Your task to perform on an android device: View the shopping cart on target.com. Search for energizer triple a on target.com, select the first entry, add it to the cart, then select checkout. Image 0: 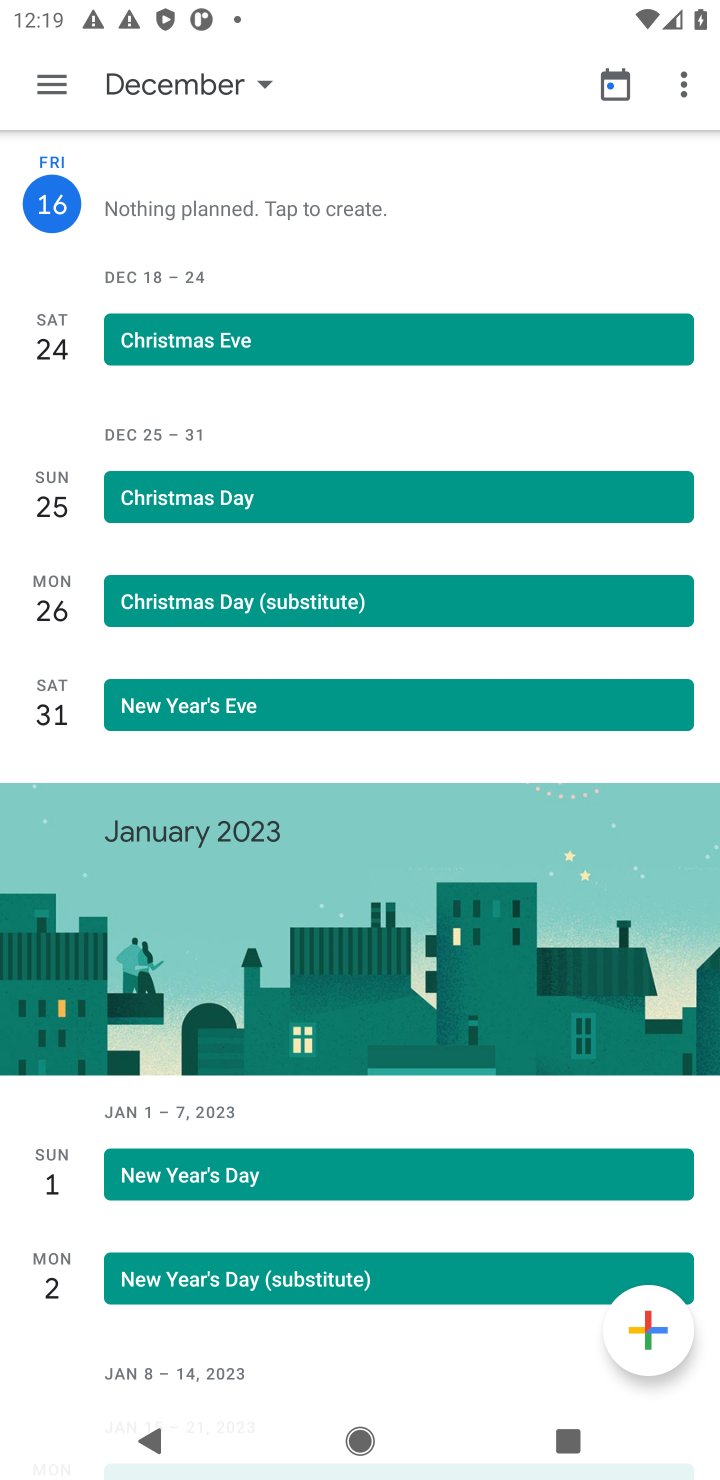
Step 0: press home button
Your task to perform on an android device: View the shopping cart on target.com. Search for energizer triple a on target.com, select the first entry, add it to the cart, then select checkout. Image 1: 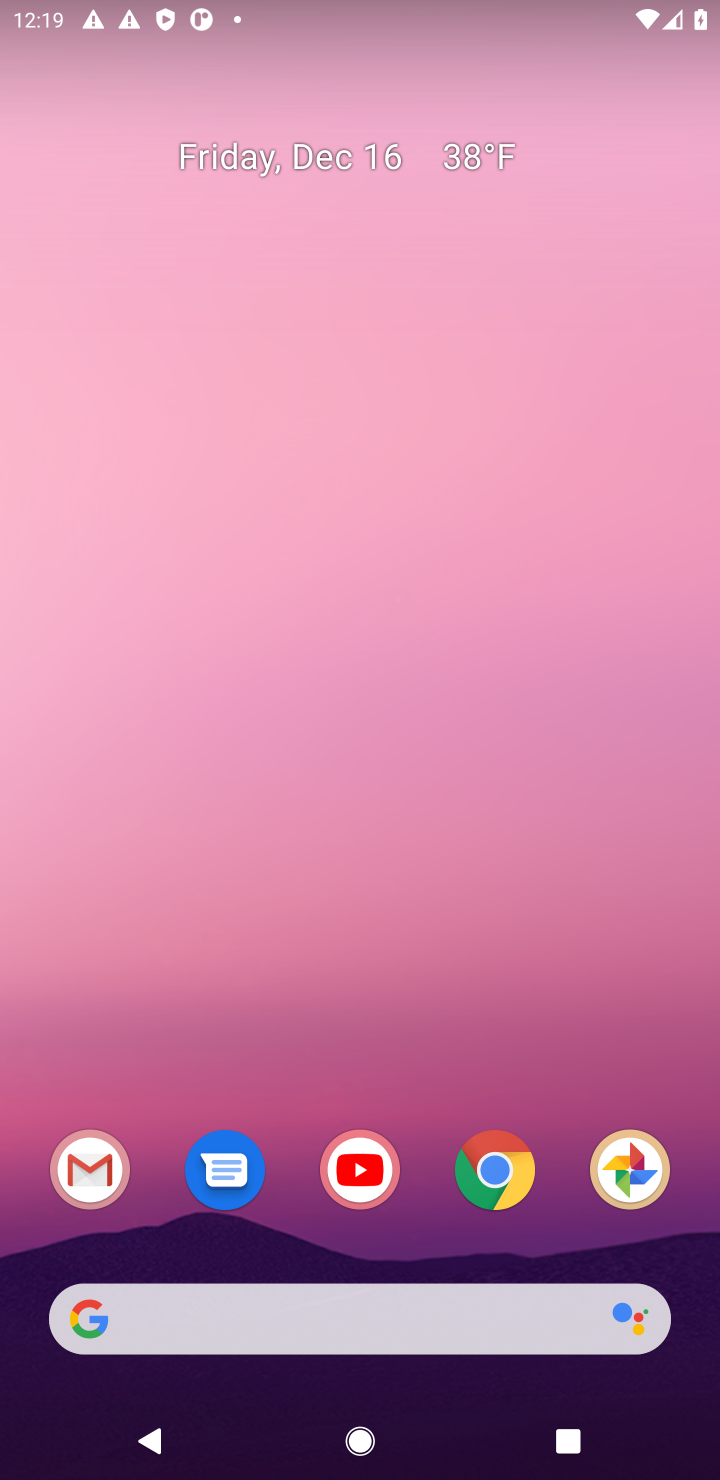
Step 1: click (498, 1177)
Your task to perform on an android device: View the shopping cart on target.com. Search for energizer triple a on target.com, select the first entry, add it to the cart, then select checkout. Image 2: 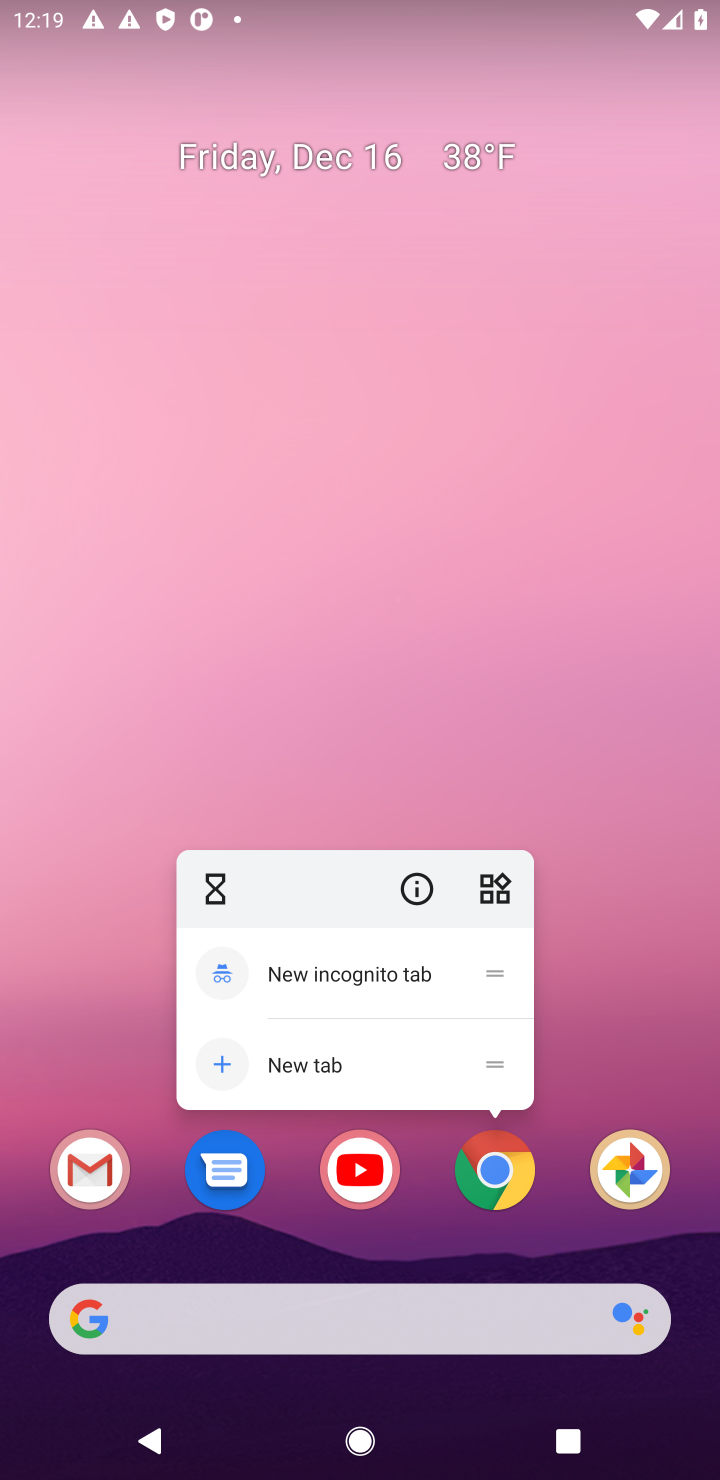
Step 2: click (500, 1178)
Your task to perform on an android device: View the shopping cart on target.com. Search for energizer triple a on target.com, select the first entry, add it to the cart, then select checkout. Image 3: 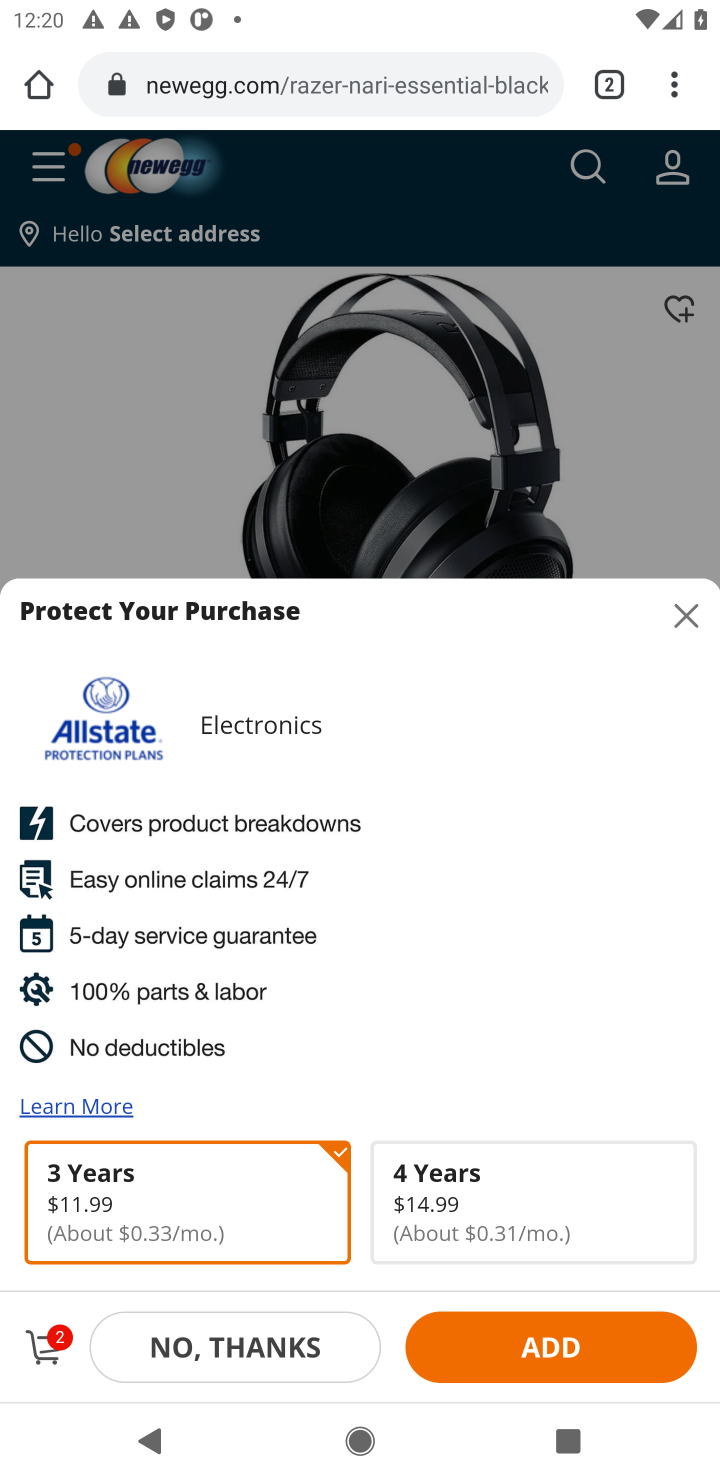
Step 3: click (345, 92)
Your task to perform on an android device: View the shopping cart on target.com. Search for energizer triple a on target.com, select the first entry, add it to the cart, then select checkout. Image 4: 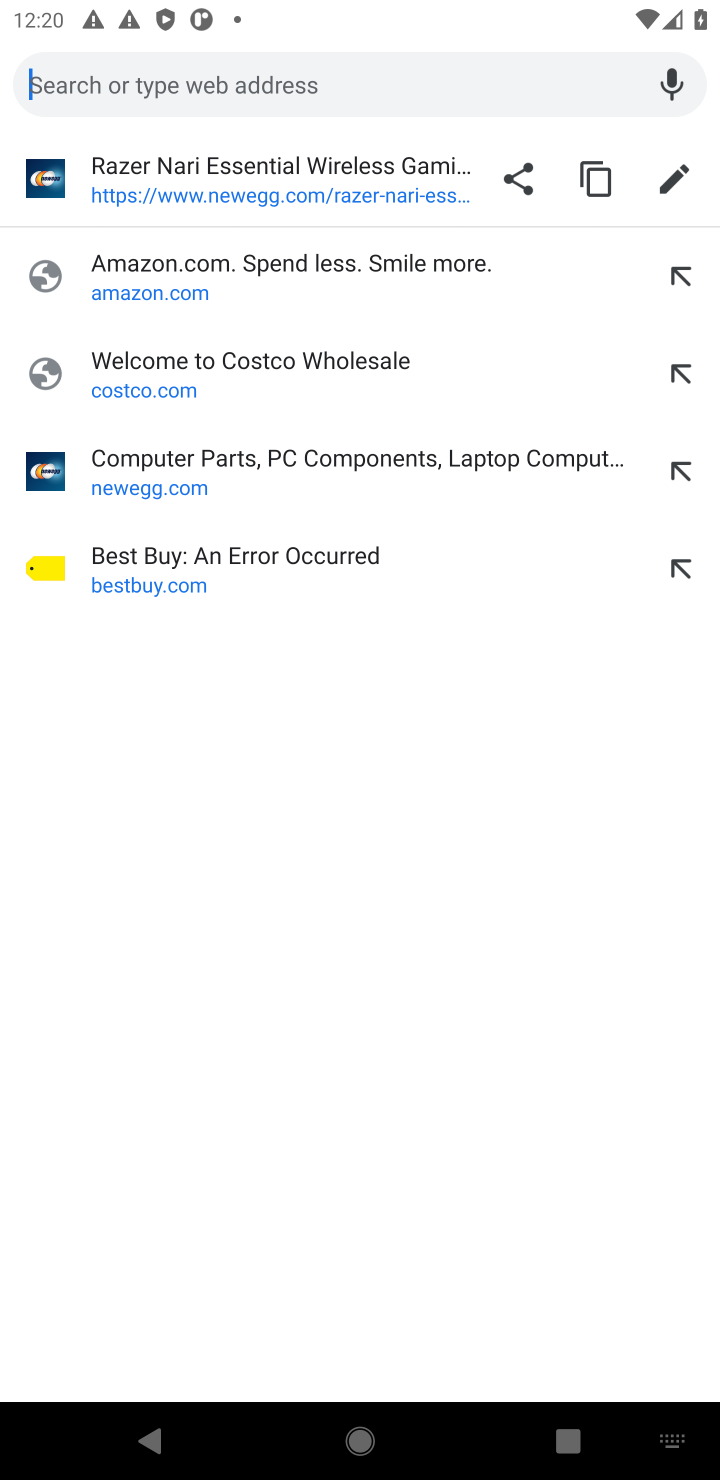
Step 4: type "target.com"
Your task to perform on an android device: View the shopping cart on target.com. Search for energizer triple a on target.com, select the first entry, add it to the cart, then select checkout. Image 5: 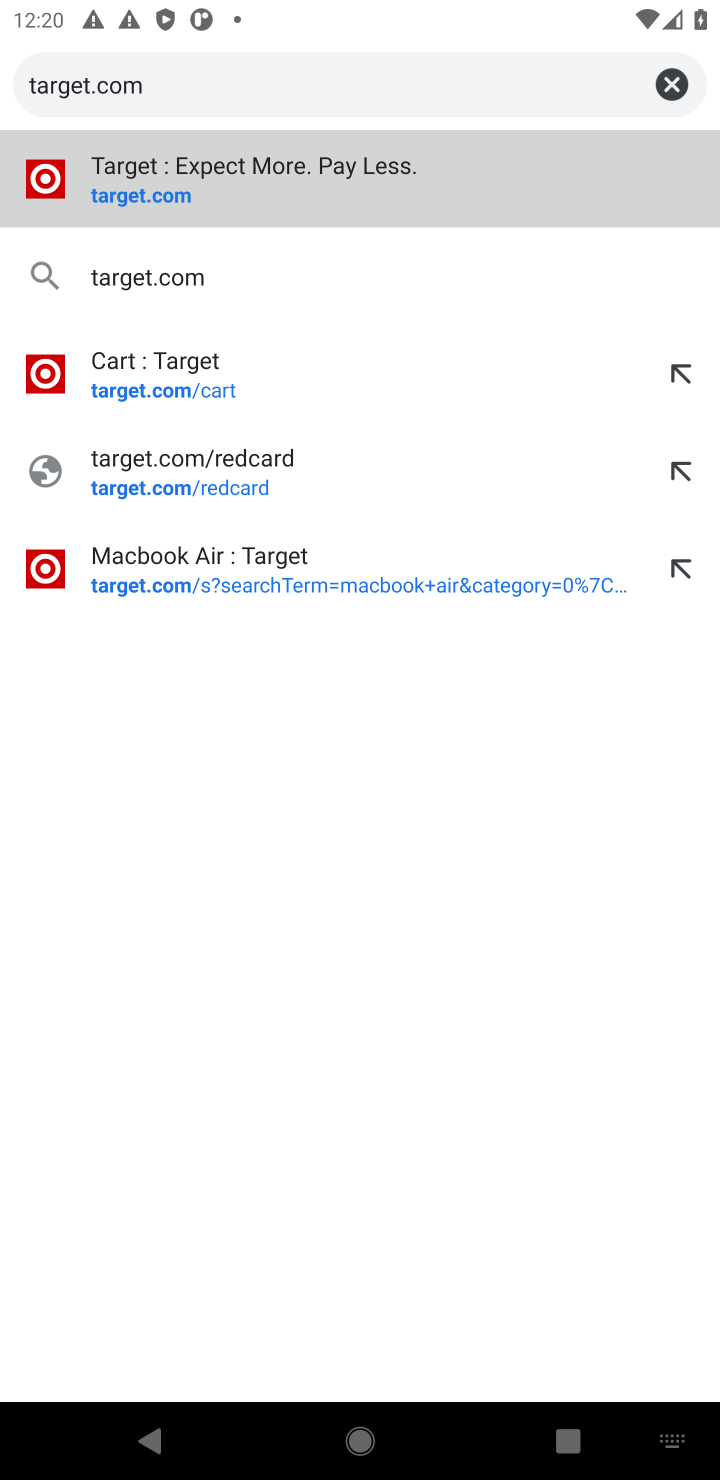
Step 5: click (171, 183)
Your task to perform on an android device: View the shopping cart on target.com. Search for energizer triple a on target.com, select the first entry, add it to the cart, then select checkout. Image 6: 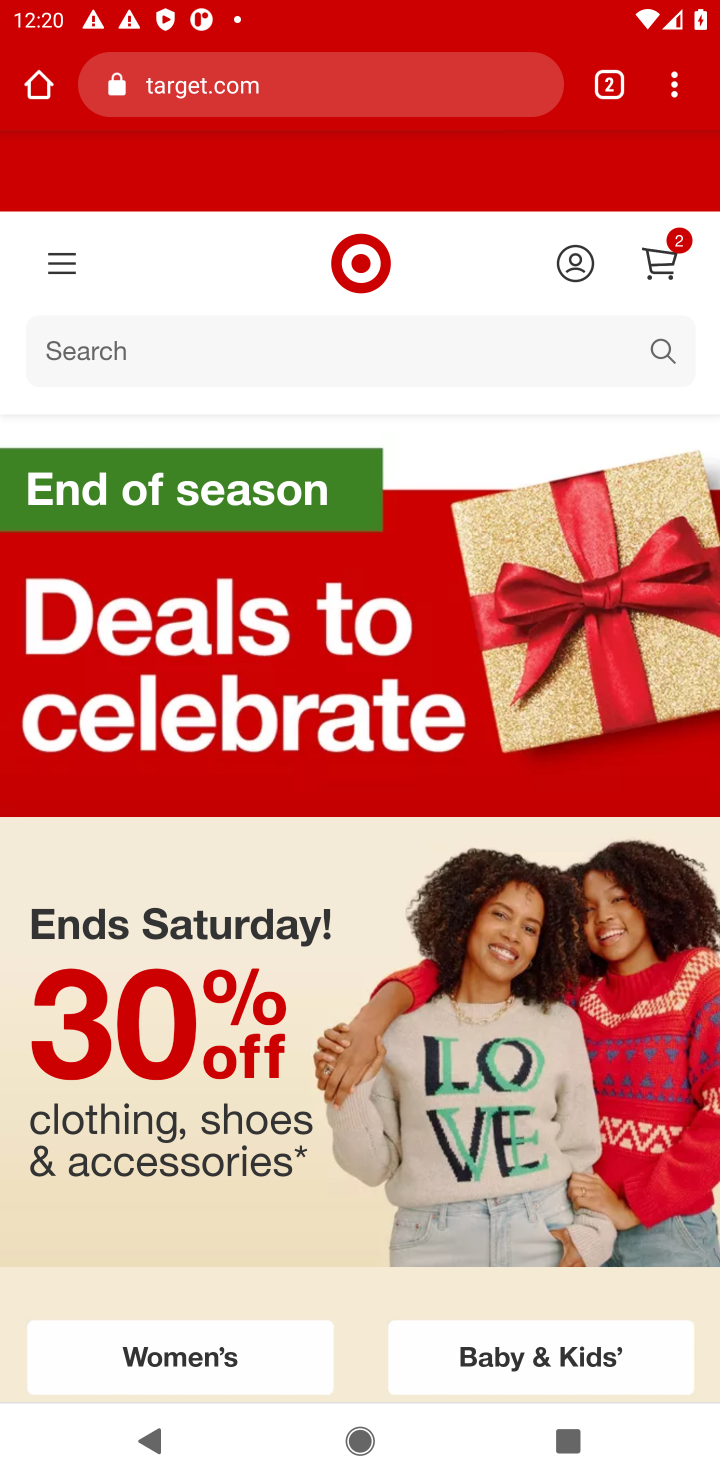
Step 6: click (664, 273)
Your task to perform on an android device: View the shopping cart on target.com. Search for energizer triple a on target.com, select the first entry, add it to the cart, then select checkout. Image 7: 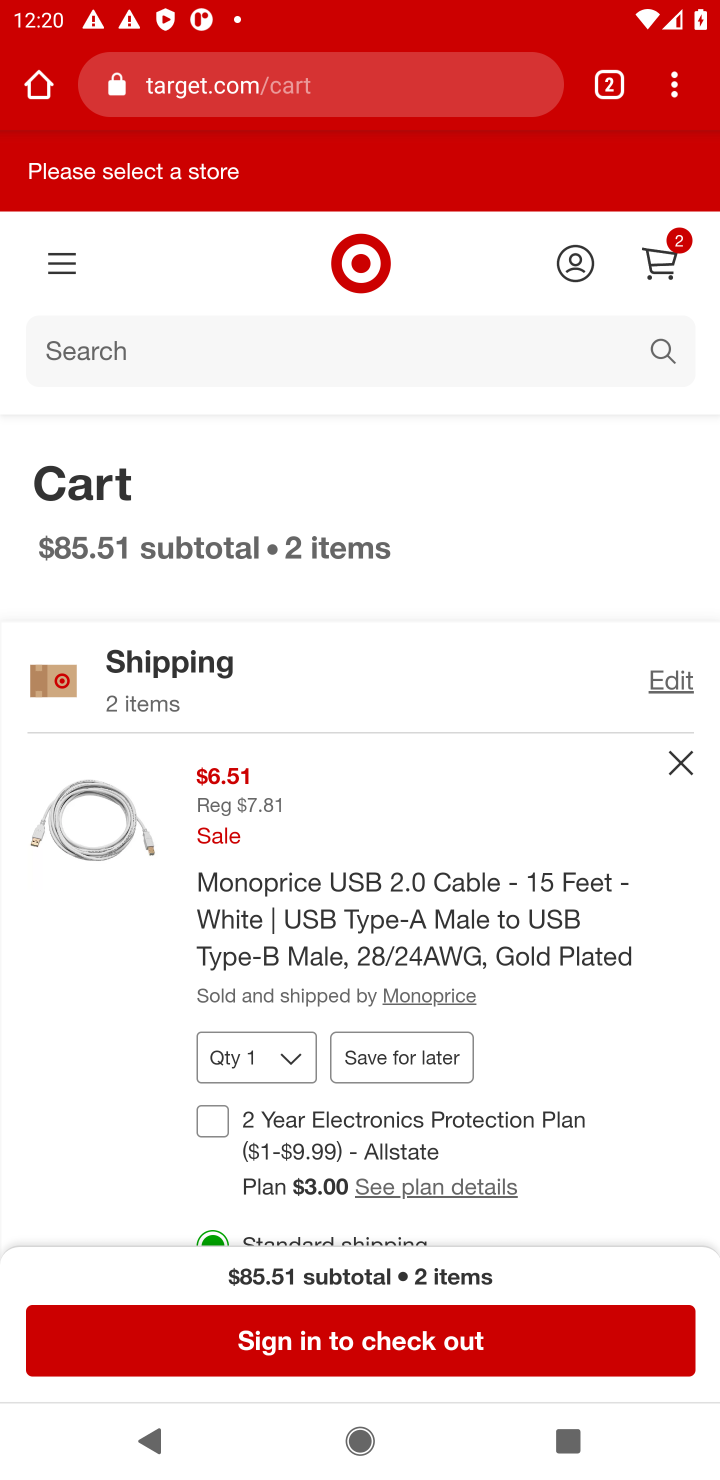
Step 7: click (51, 362)
Your task to perform on an android device: View the shopping cart on target.com. Search for energizer triple a on target.com, select the first entry, add it to the cart, then select checkout. Image 8: 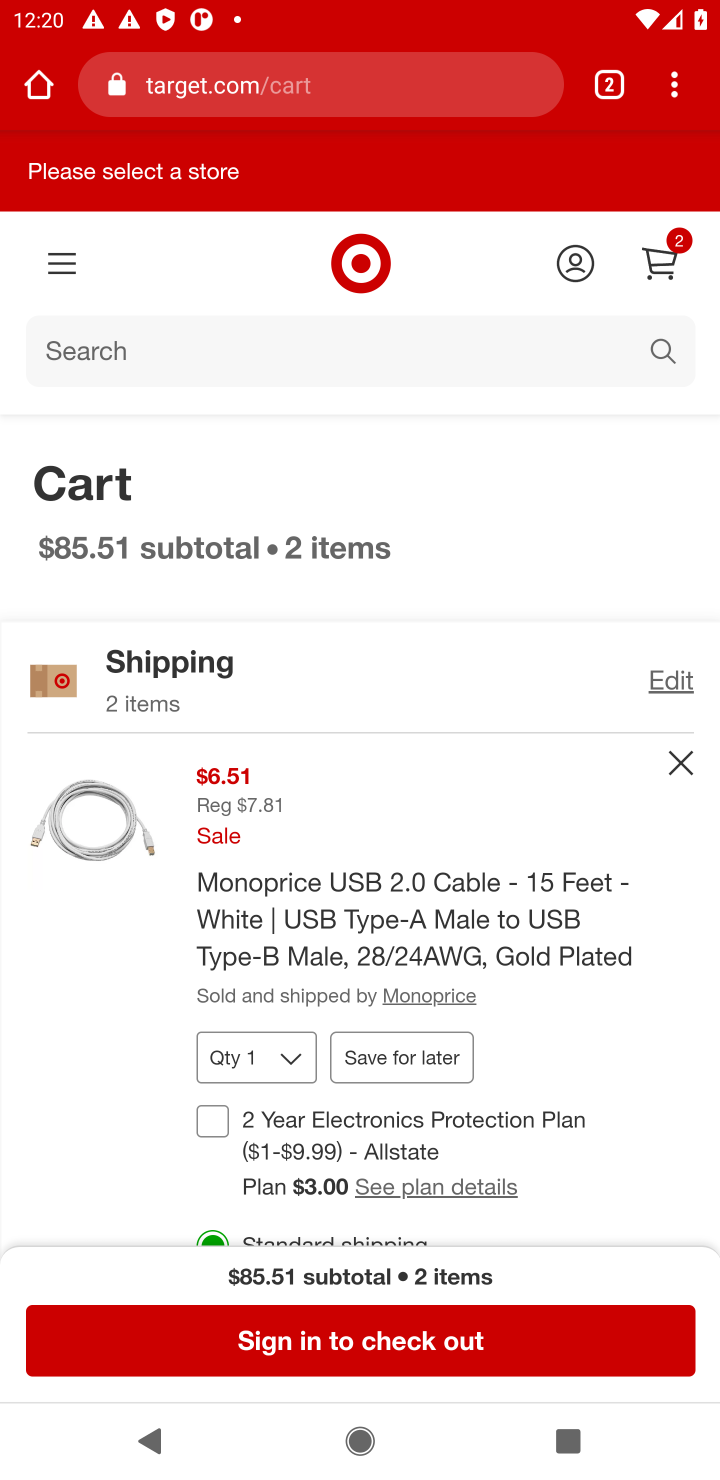
Step 8: click (58, 351)
Your task to perform on an android device: View the shopping cart on target.com. Search for energizer triple a on target.com, select the first entry, add it to the cart, then select checkout. Image 9: 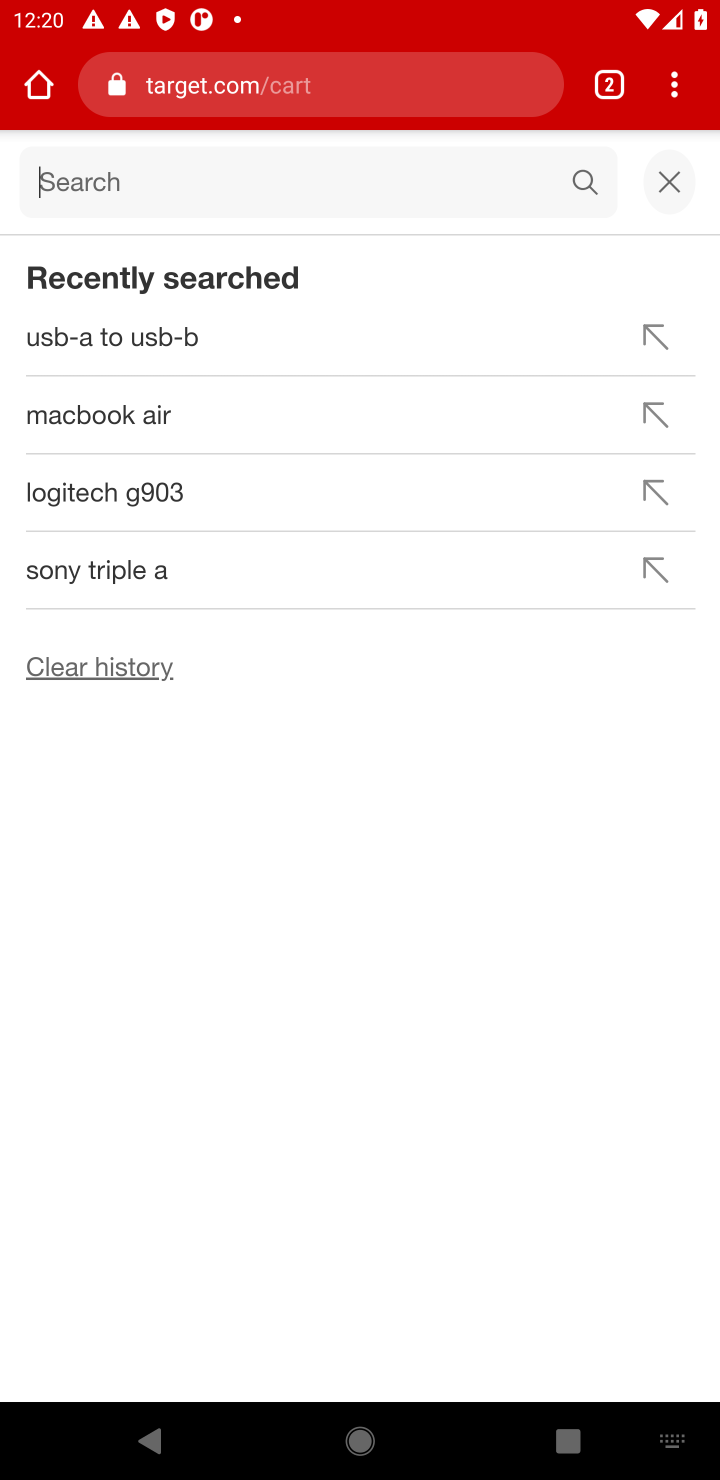
Step 9: type "energizer triple a"
Your task to perform on an android device: View the shopping cart on target.com. Search for energizer triple a on target.com, select the first entry, add it to the cart, then select checkout. Image 10: 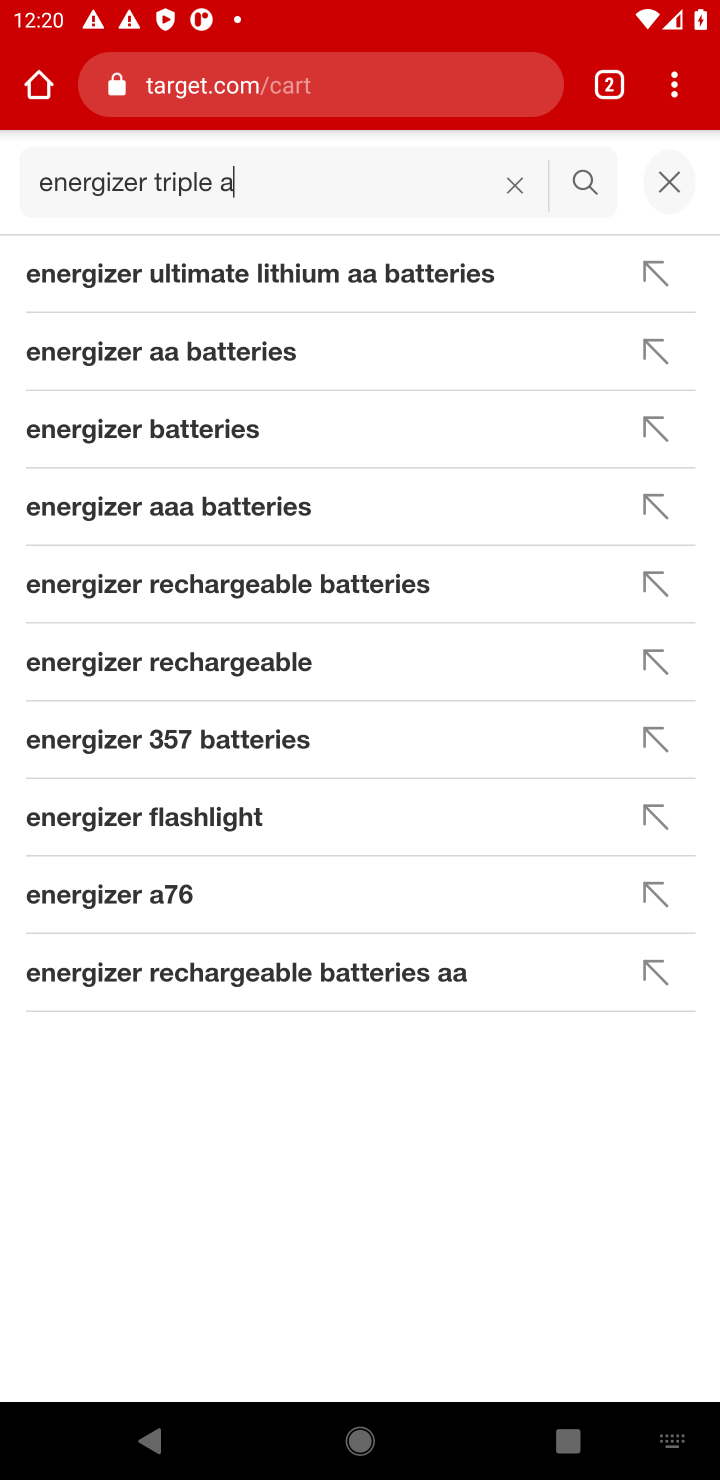
Step 10: click (574, 183)
Your task to perform on an android device: View the shopping cart on target.com. Search for energizer triple a on target.com, select the first entry, add it to the cart, then select checkout. Image 11: 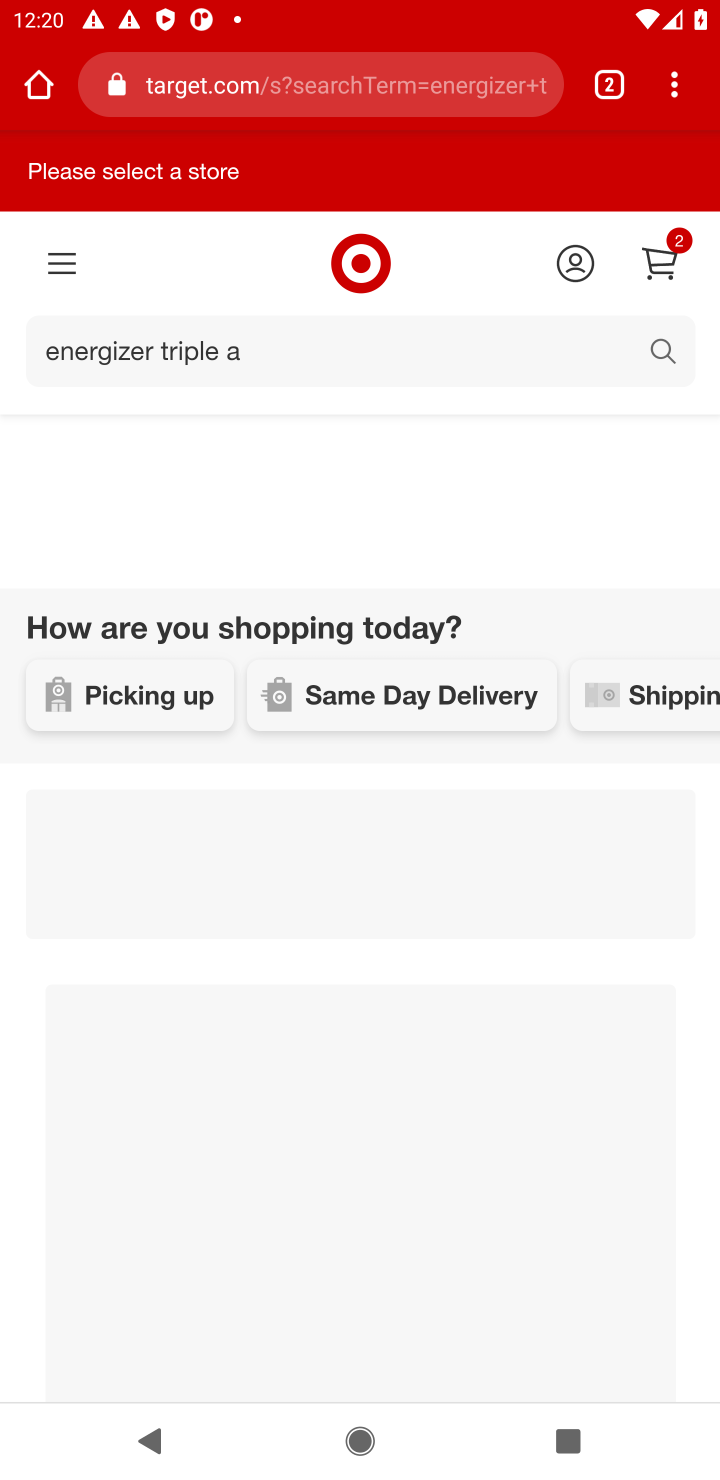
Step 11: task complete